Your task to perform on an android device: Search for Italian restaurants on Maps Image 0: 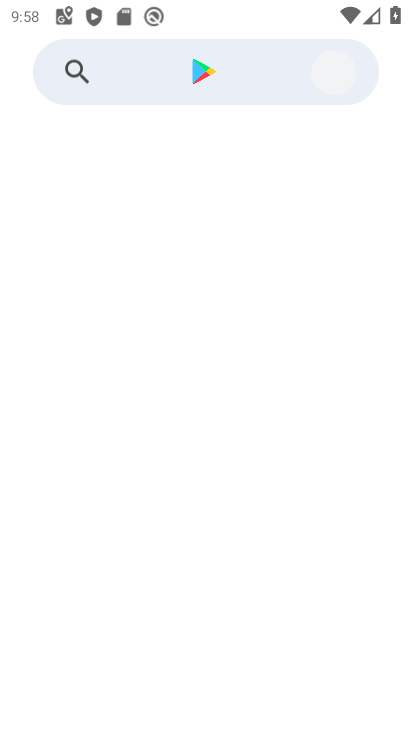
Step 0: press home button
Your task to perform on an android device: Search for Italian restaurants on Maps Image 1: 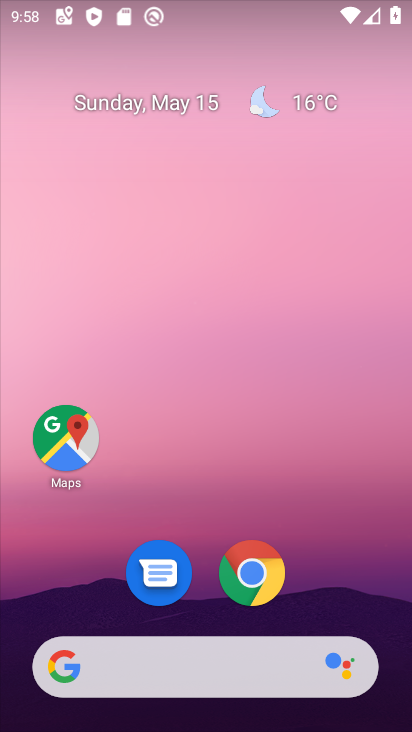
Step 1: drag from (369, 600) to (244, 723)
Your task to perform on an android device: Search for Italian restaurants on Maps Image 2: 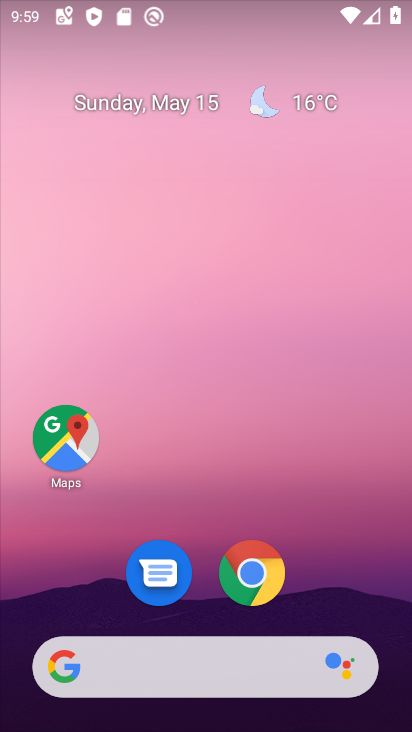
Step 2: click (54, 440)
Your task to perform on an android device: Search for Italian restaurants on Maps Image 3: 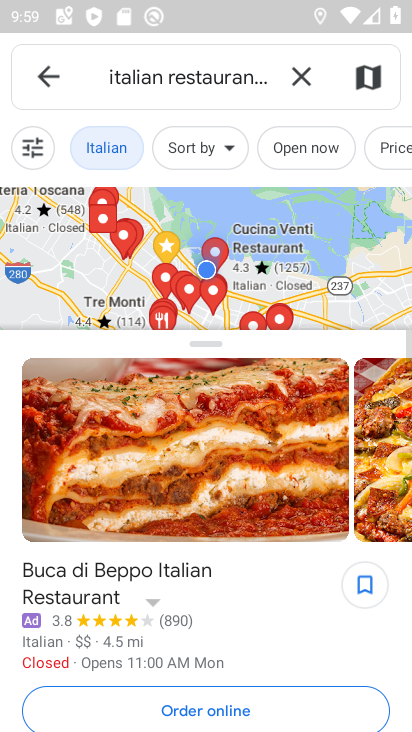
Step 3: task complete